Your task to perform on an android device: Go to accessibility settings Image 0: 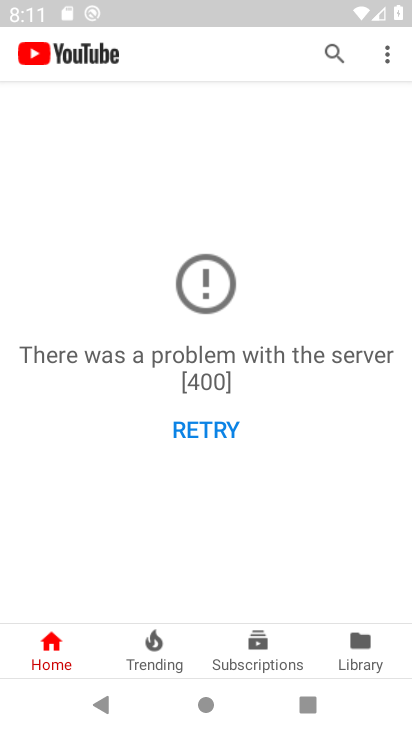
Step 0: press back button
Your task to perform on an android device: Go to accessibility settings Image 1: 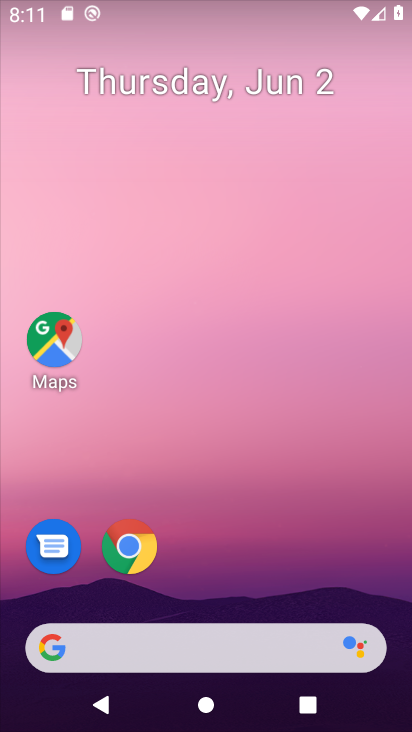
Step 1: drag from (232, 553) to (186, 15)
Your task to perform on an android device: Go to accessibility settings Image 2: 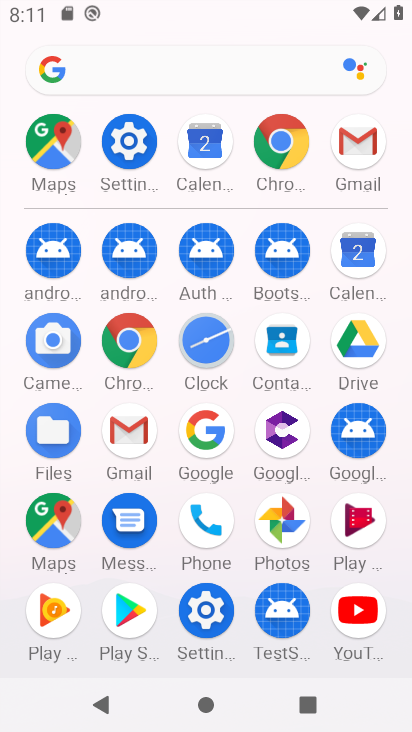
Step 2: click (116, 147)
Your task to perform on an android device: Go to accessibility settings Image 3: 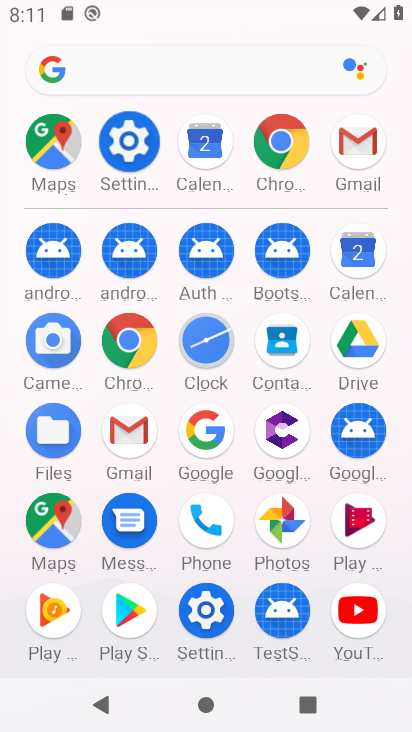
Step 3: click (118, 146)
Your task to perform on an android device: Go to accessibility settings Image 4: 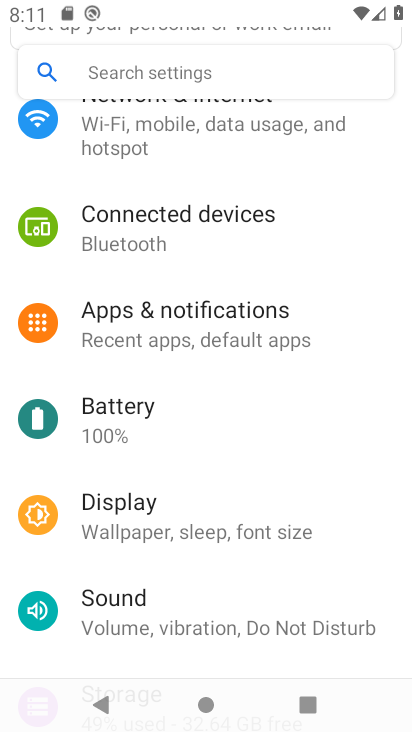
Step 4: drag from (212, 486) to (202, 134)
Your task to perform on an android device: Go to accessibility settings Image 5: 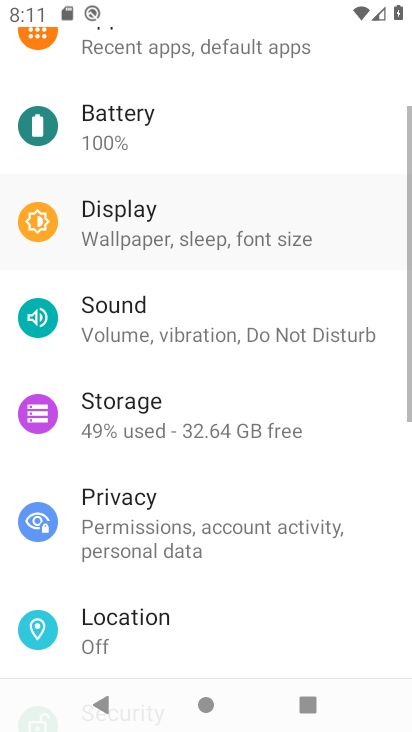
Step 5: drag from (207, 421) to (198, 232)
Your task to perform on an android device: Go to accessibility settings Image 6: 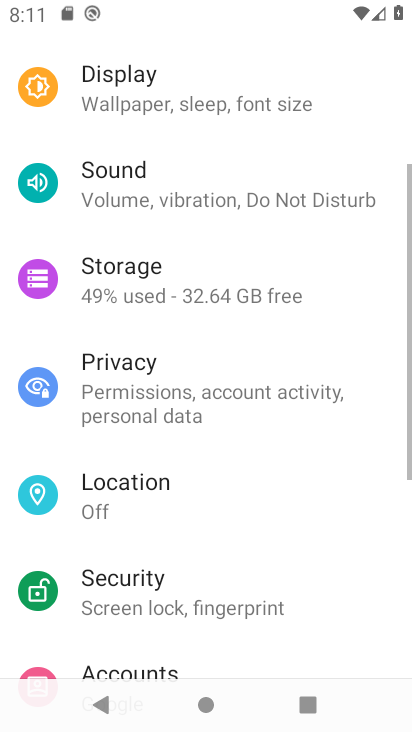
Step 6: drag from (205, 323) to (207, 136)
Your task to perform on an android device: Go to accessibility settings Image 7: 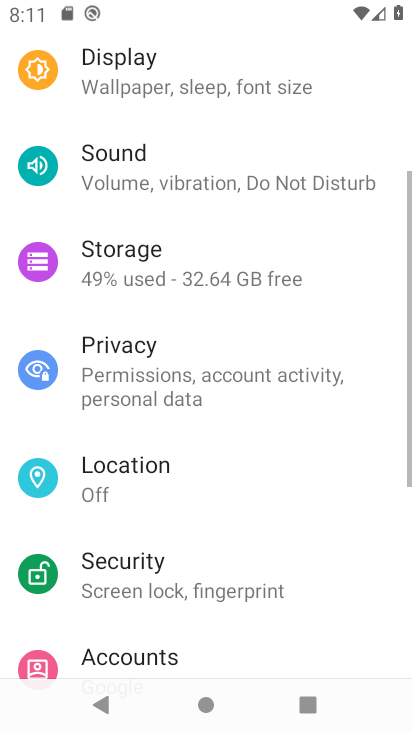
Step 7: drag from (226, 490) to (225, 157)
Your task to perform on an android device: Go to accessibility settings Image 8: 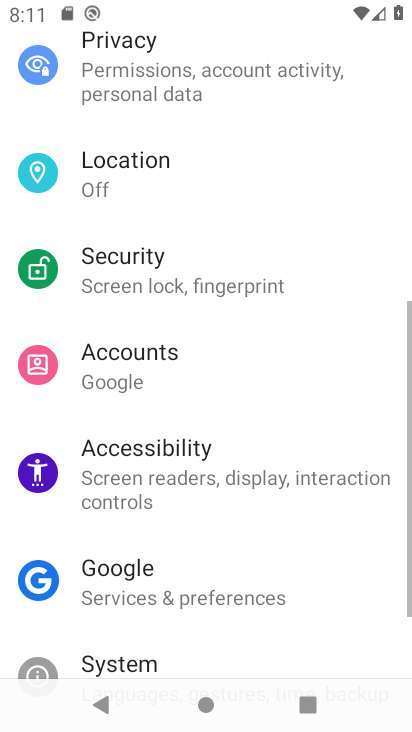
Step 8: drag from (225, 478) to (215, 212)
Your task to perform on an android device: Go to accessibility settings Image 9: 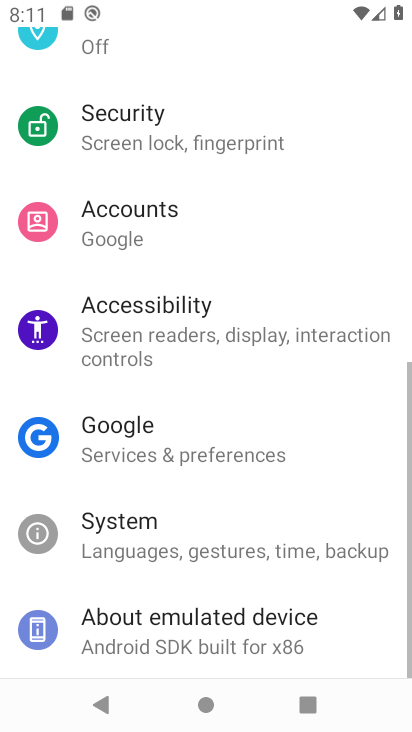
Step 9: drag from (167, 463) to (158, 289)
Your task to perform on an android device: Go to accessibility settings Image 10: 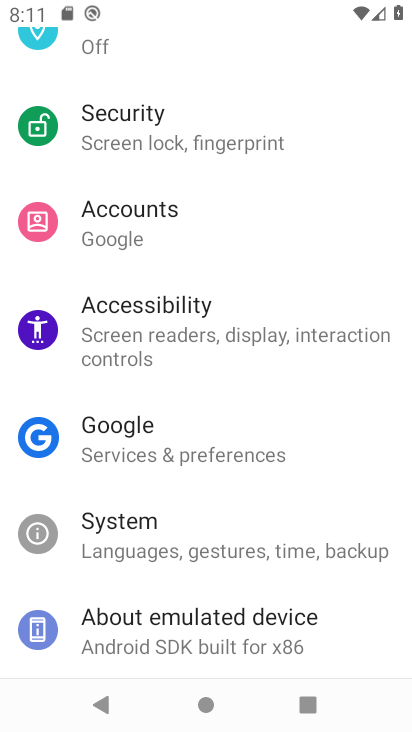
Step 10: click (142, 318)
Your task to perform on an android device: Go to accessibility settings Image 11: 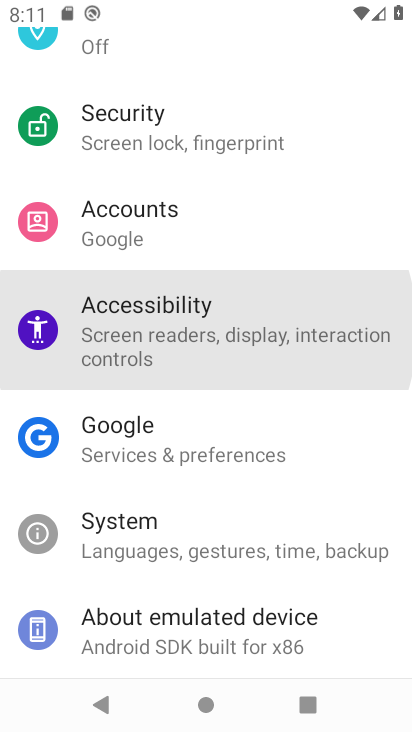
Step 11: click (142, 319)
Your task to perform on an android device: Go to accessibility settings Image 12: 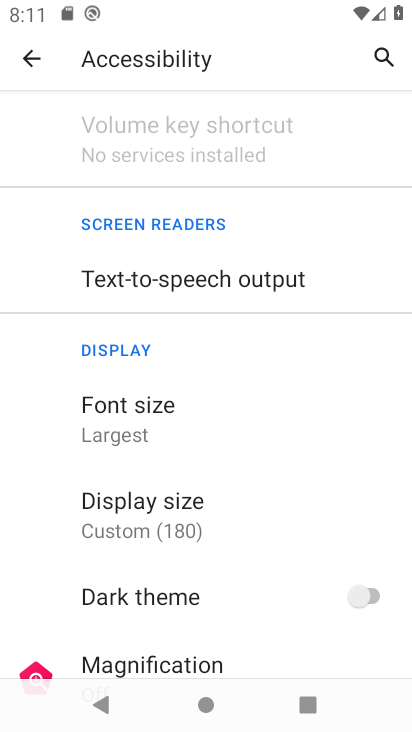
Step 12: task complete